Your task to perform on an android device: uninstall "Mercado Libre" Image 0: 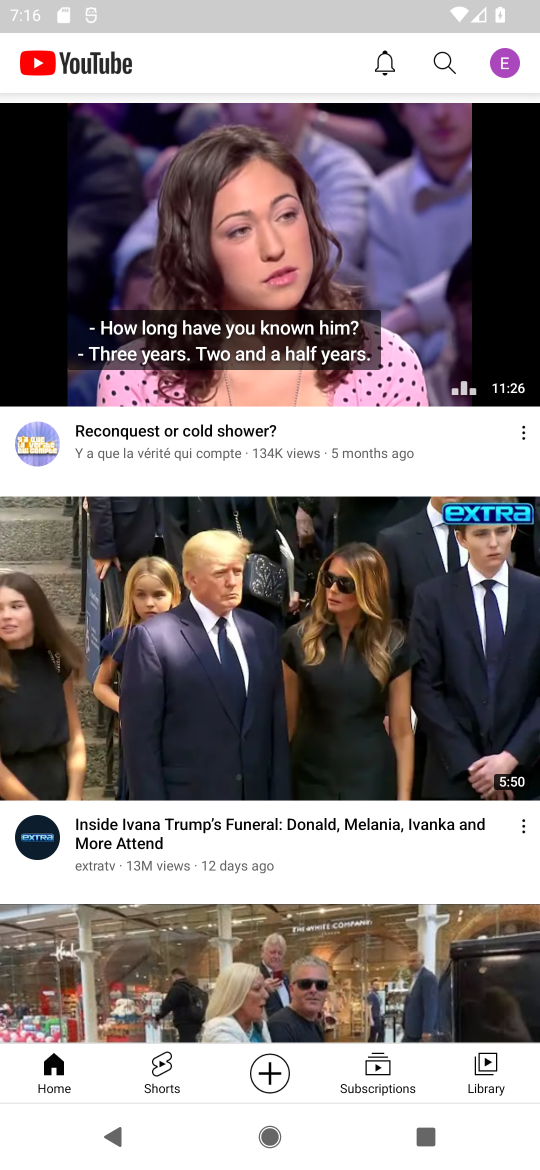
Step 0: press home button
Your task to perform on an android device: uninstall "Mercado Libre" Image 1: 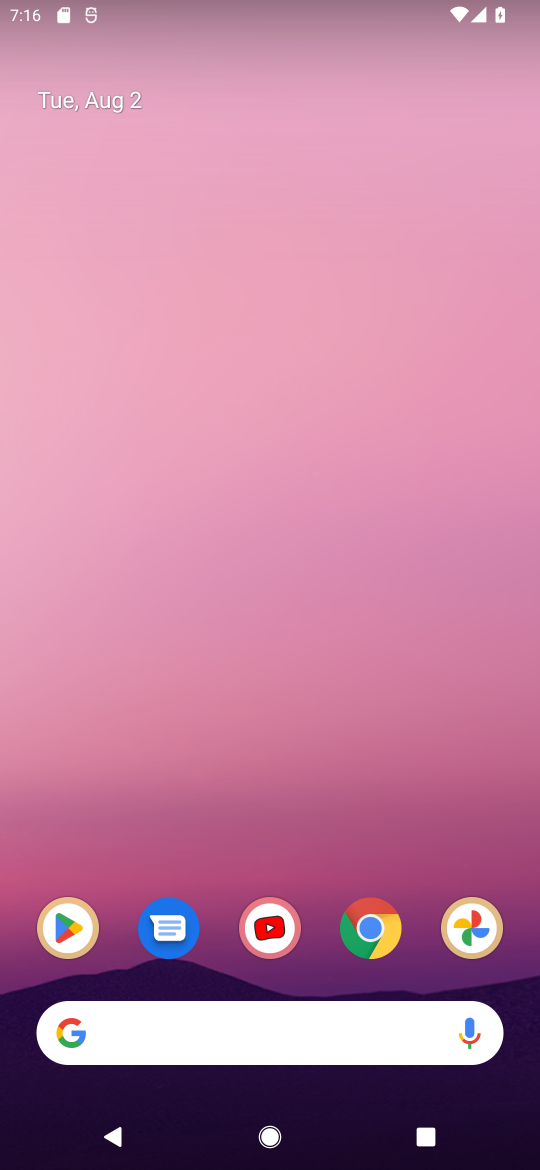
Step 1: click (76, 962)
Your task to perform on an android device: uninstall "Mercado Libre" Image 2: 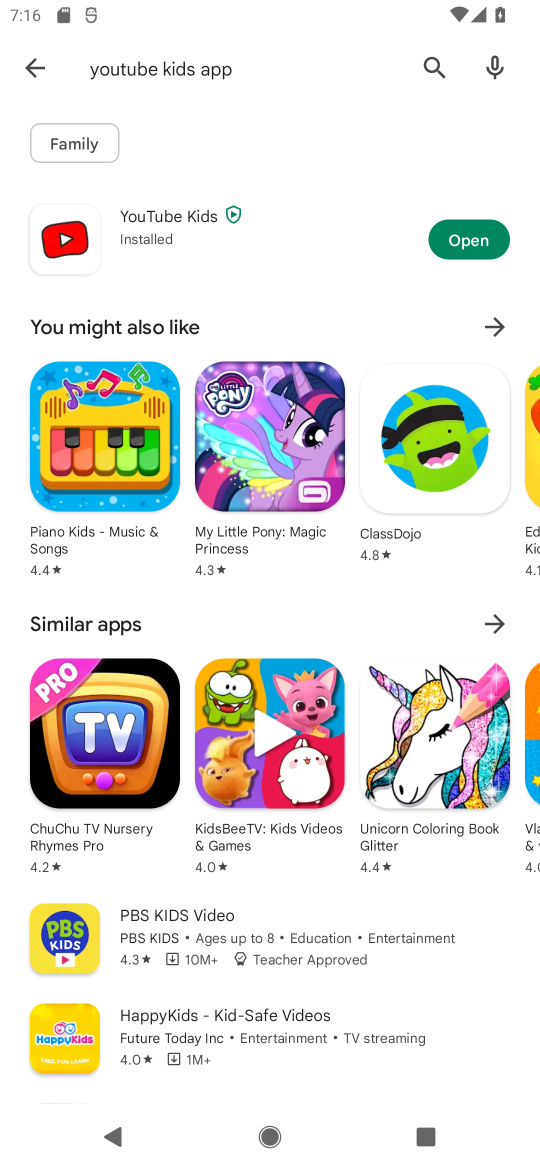
Step 2: click (420, 56)
Your task to perform on an android device: uninstall "Mercado Libre" Image 3: 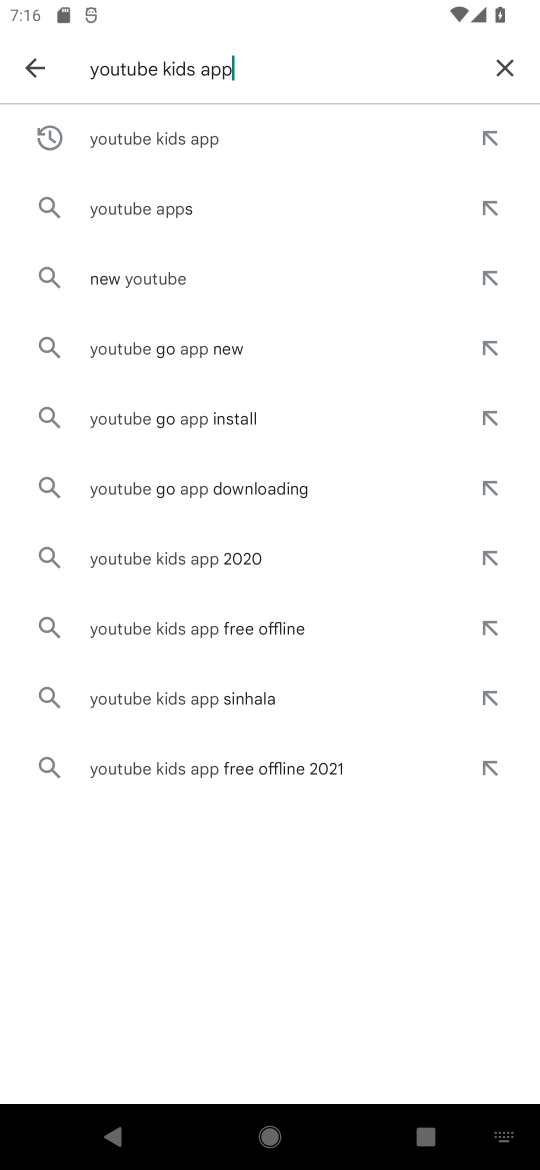
Step 3: click (497, 65)
Your task to perform on an android device: uninstall "Mercado Libre" Image 4: 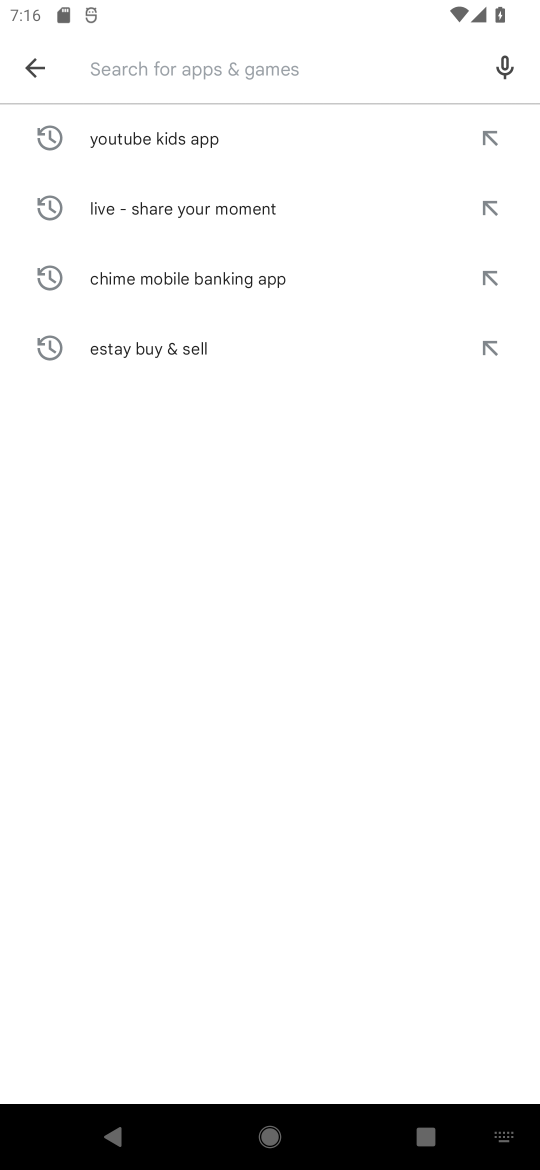
Step 4: type "Mercado"
Your task to perform on an android device: uninstall "Mercado Libre" Image 5: 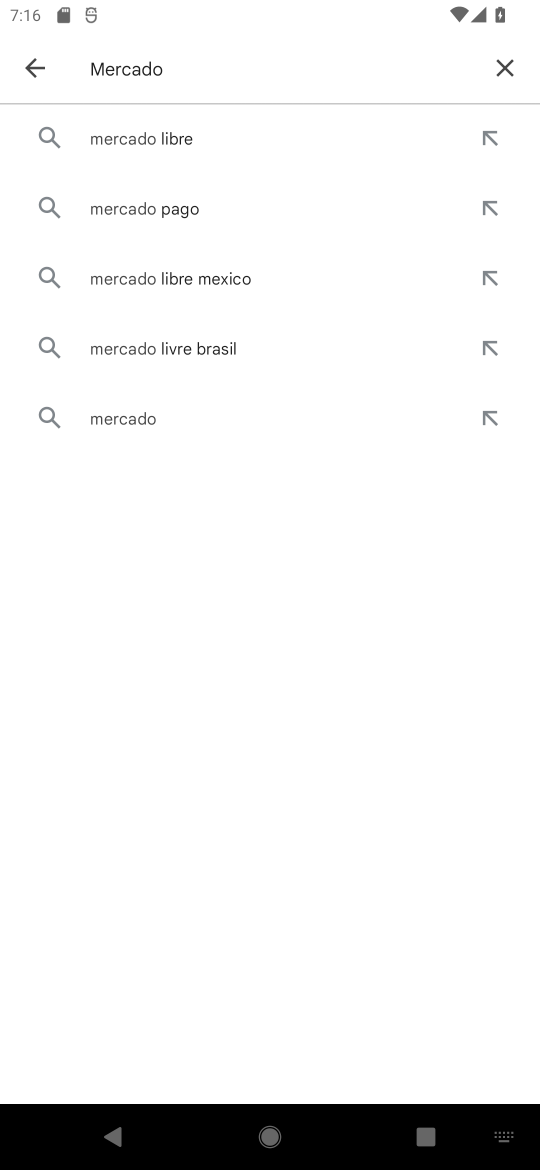
Step 5: click (236, 147)
Your task to perform on an android device: uninstall "Mercado Libre" Image 6: 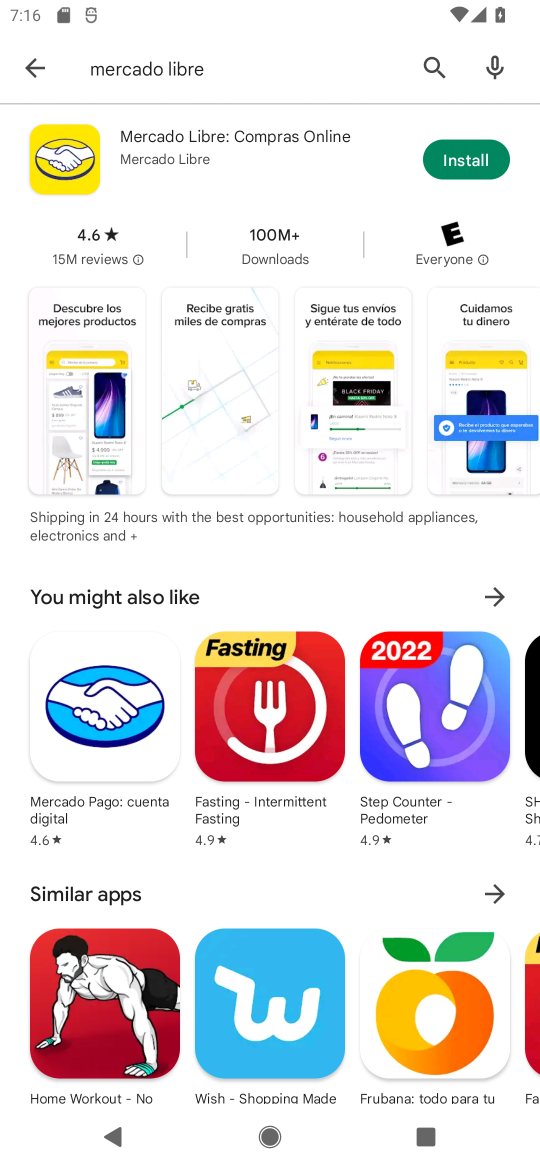
Step 6: task complete